Your task to perform on an android device: Go to Maps Image 0: 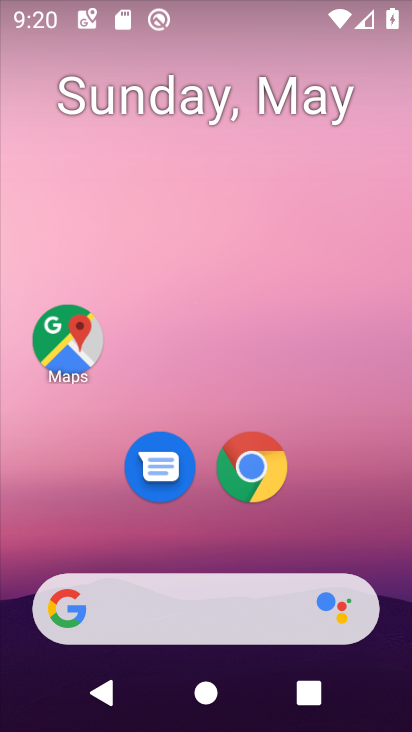
Step 0: drag from (374, 514) to (377, 120)
Your task to perform on an android device: Go to Maps Image 1: 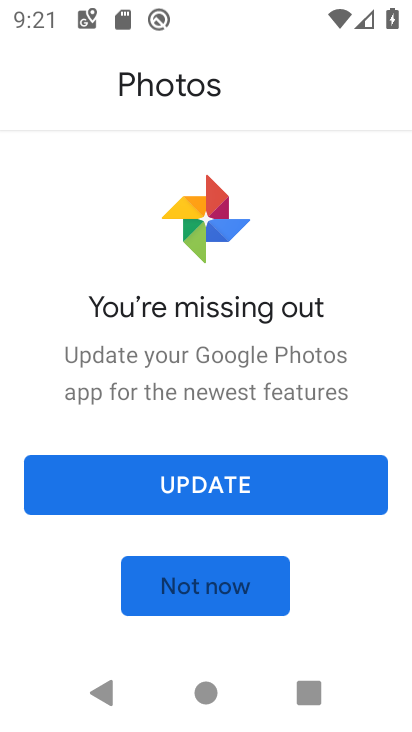
Step 1: click (251, 491)
Your task to perform on an android device: Go to Maps Image 2: 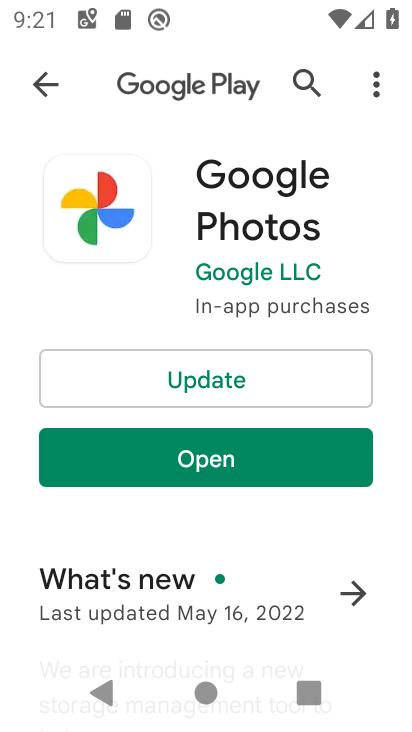
Step 2: click (257, 374)
Your task to perform on an android device: Go to Maps Image 3: 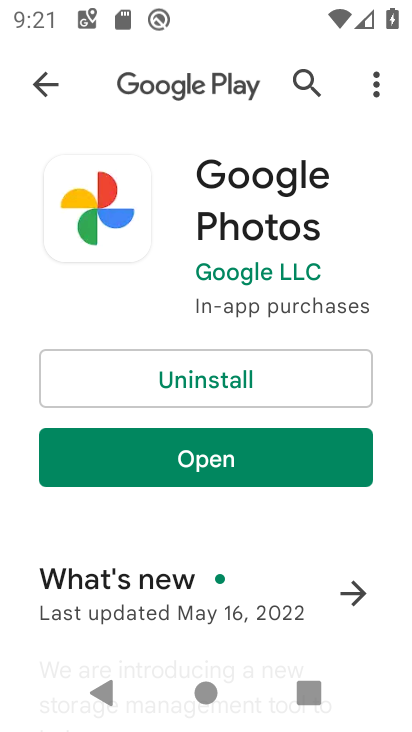
Step 3: click (259, 463)
Your task to perform on an android device: Go to Maps Image 4: 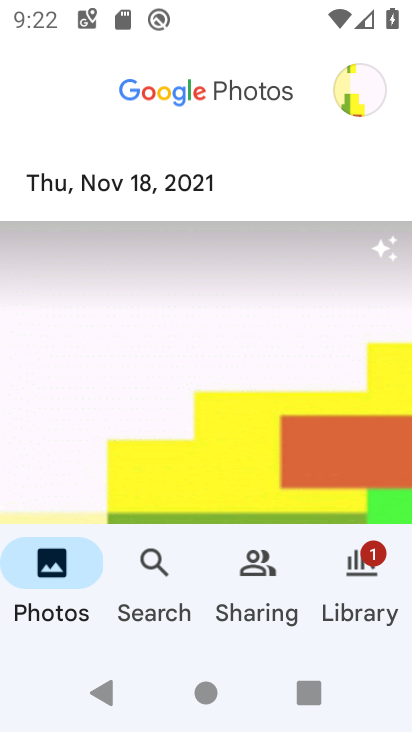
Step 4: press home button
Your task to perform on an android device: Go to Maps Image 5: 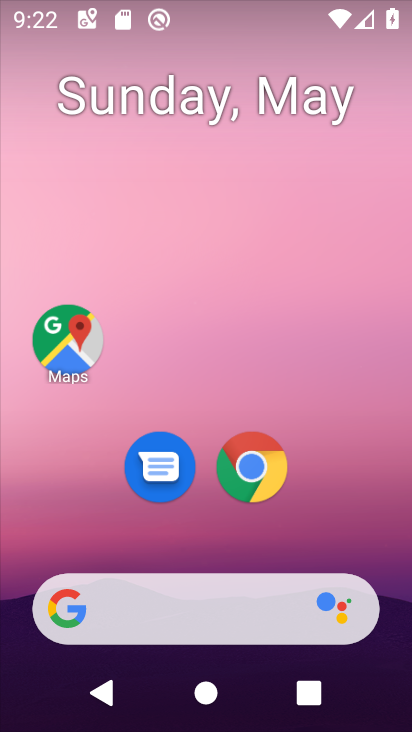
Step 5: drag from (343, 493) to (340, 125)
Your task to perform on an android device: Go to Maps Image 6: 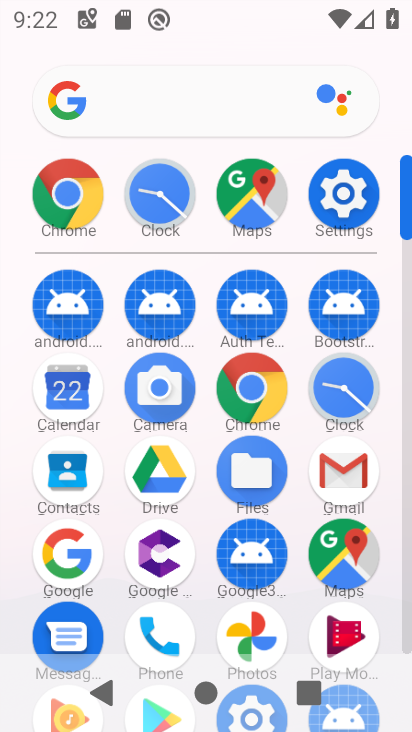
Step 6: click (322, 559)
Your task to perform on an android device: Go to Maps Image 7: 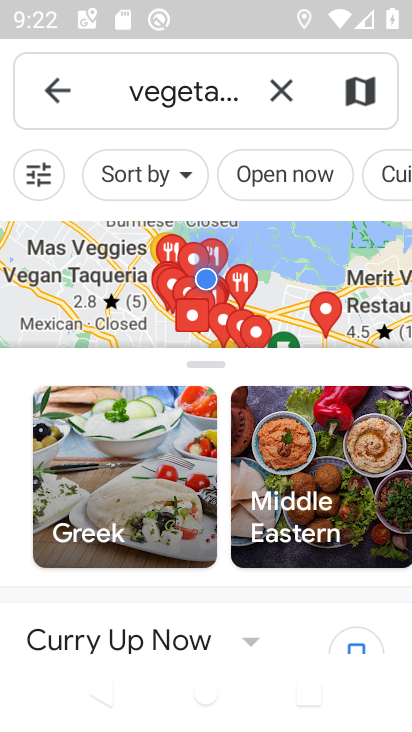
Step 7: task complete